Your task to perform on an android device: choose inbox layout in the gmail app Image 0: 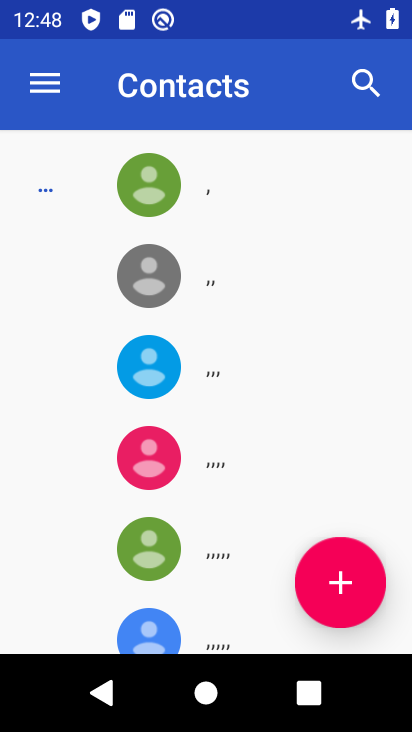
Step 0: press home button
Your task to perform on an android device: choose inbox layout in the gmail app Image 1: 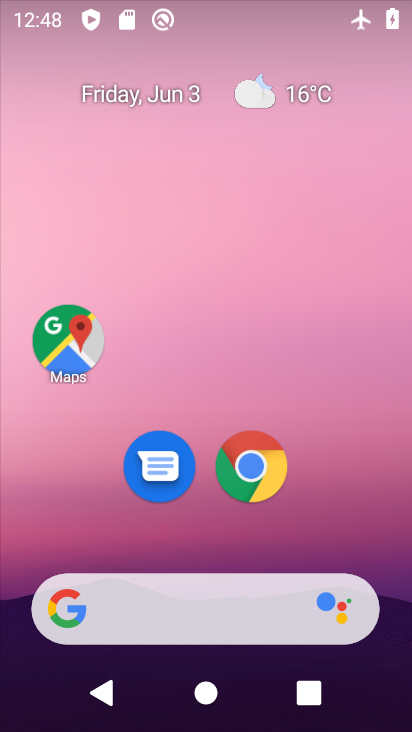
Step 1: drag from (185, 591) to (185, 273)
Your task to perform on an android device: choose inbox layout in the gmail app Image 2: 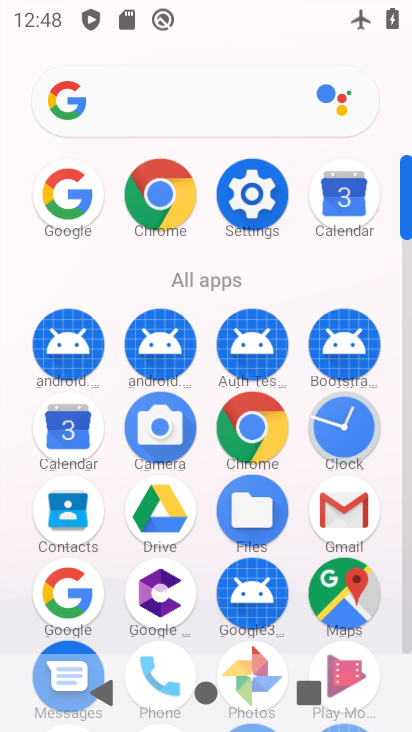
Step 2: click (347, 485)
Your task to perform on an android device: choose inbox layout in the gmail app Image 3: 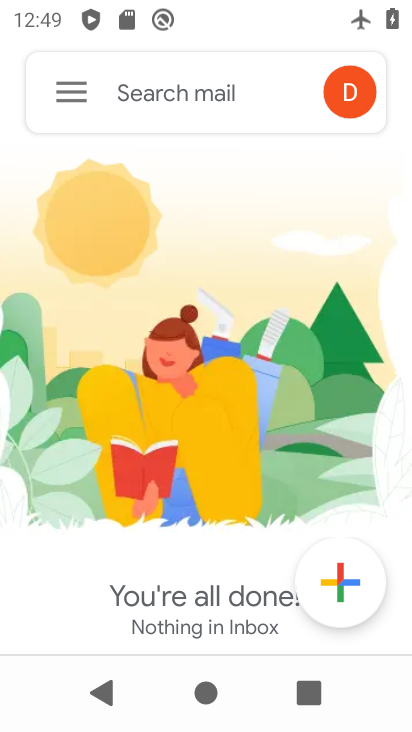
Step 3: click (74, 99)
Your task to perform on an android device: choose inbox layout in the gmail app Image 4: 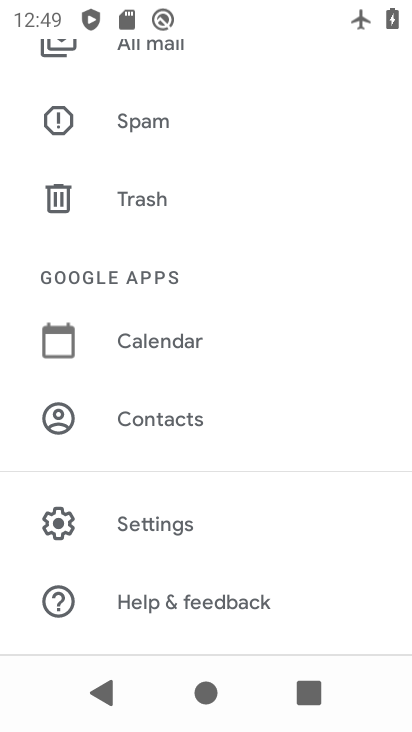
Step 4: click (148, 526)
Your task to perform on an android device: choose inbox layout in the gmail app Image 5: 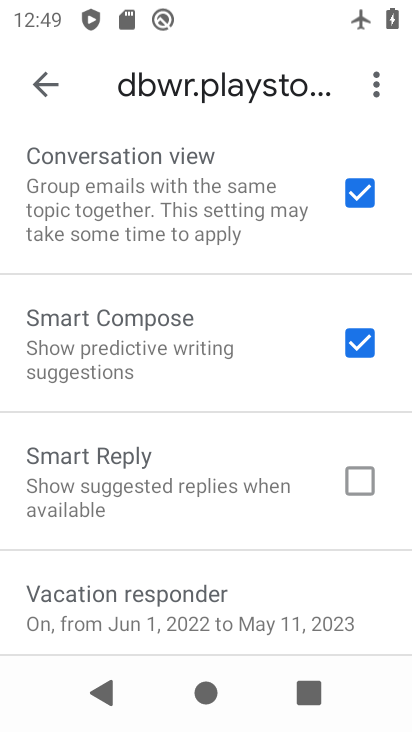
Step 5: drag from (187, 169) to (190, 602)
Your task to perform on an android device: choose inbox layout in the gmail app Image 6: 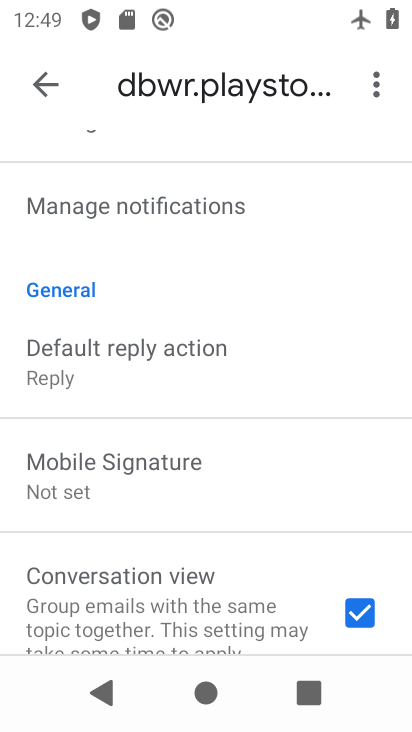
Step 6: drag from (201, 162) to (224, 509)
Your task to perform on an android device: choose inbox layout in the gmail app Image 7: 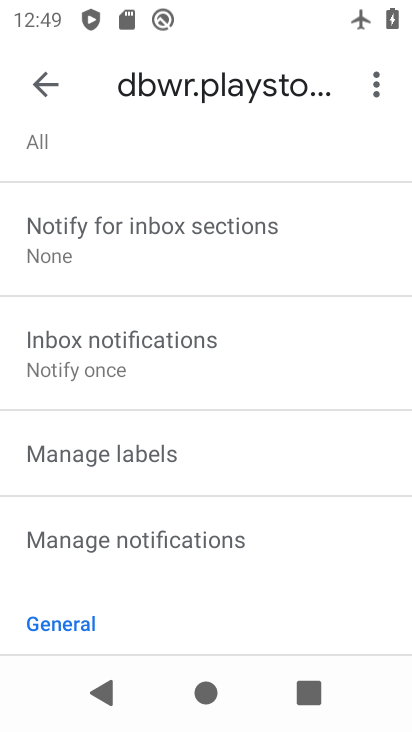
Step 7: drag from (134, 203) to (58, 590)
Your task to perform on an android device: choose inbox layout in the gmail app Image 8: 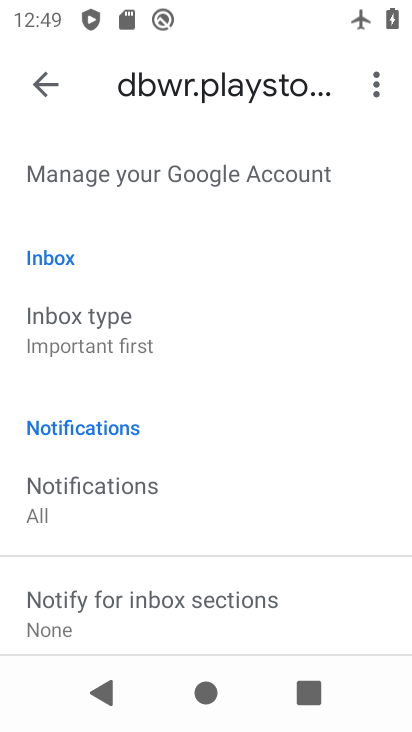
Step 8: click (64, 306)
Your task to perform on an android device: choose inbox layout in the gmail app Image 9: 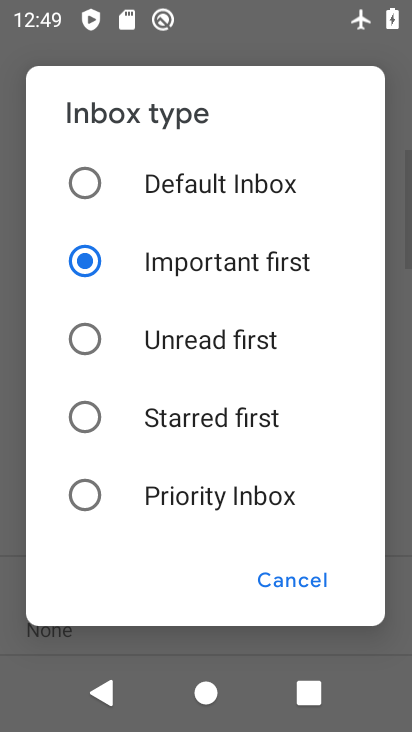
Step 9: click (114, 427)
Your task to perform on an android device: choose inbox layout in the gmail app Image 10: 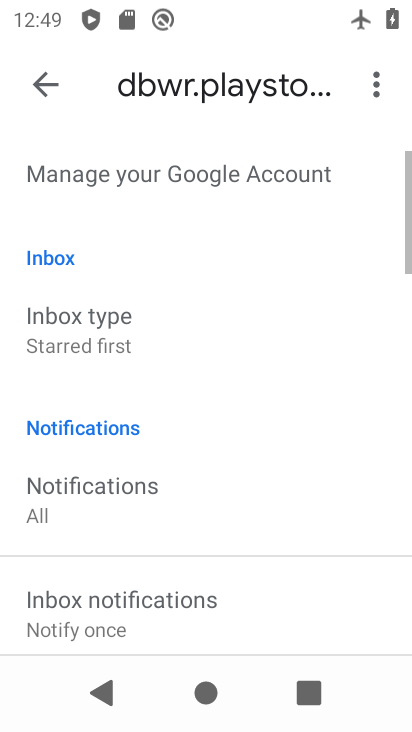
Step 10: task complete